Your task to perform on an android device: Go to wifi settings Image 0: 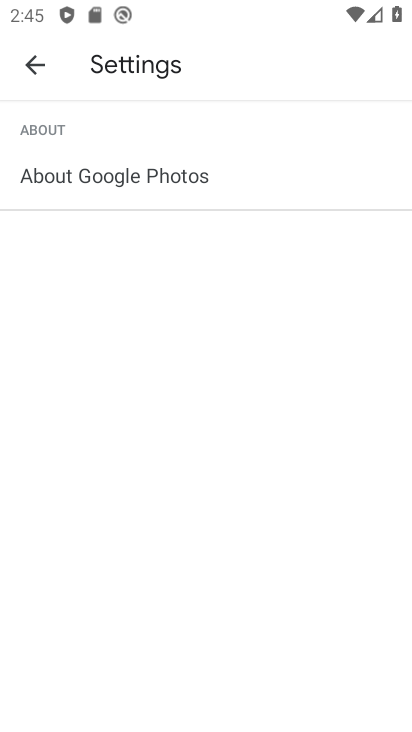
Step 0: press home button
Your task to perform on an android device: Go to wifi settings Image 1: 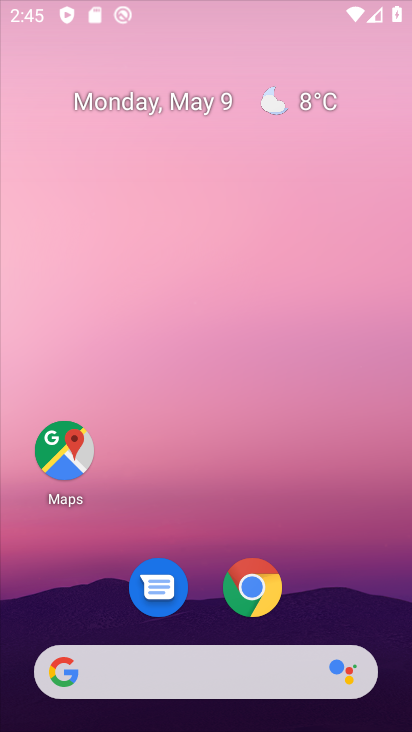
Step 1: drag from (187, 612) to (245, 168)
Your task to perform on an android device: Go to wifi settings Image 2: 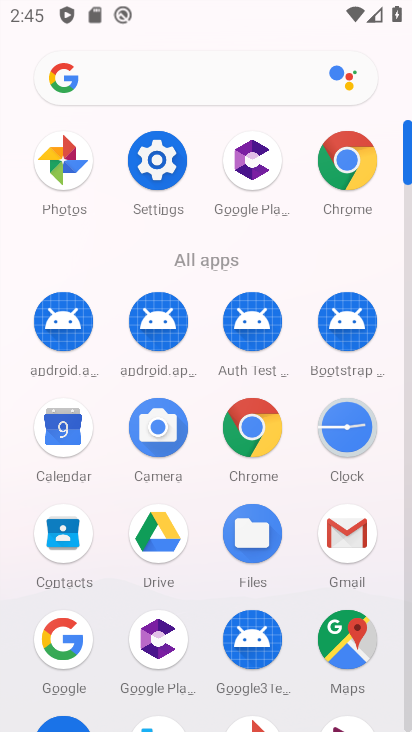
Step 2: click (149, 191)
Your task to perform on an android device: Go to wifi settings Image 3: 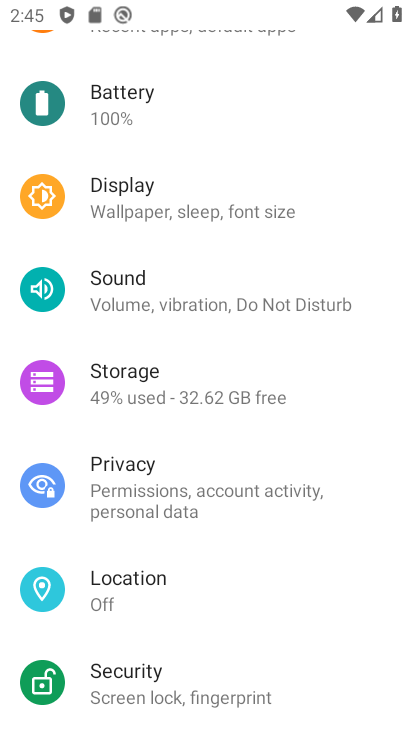
Step 3: drag from (215, 279) to (237, 700)
Your task to perform on an android device: Go to wifi settings Image 4: 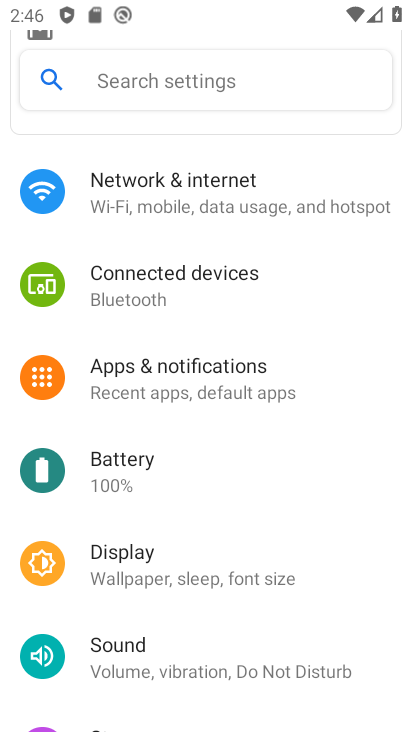
Step 4: click (196, 190)
Your task to perform on an android device: Go to wifi settings Image 5: 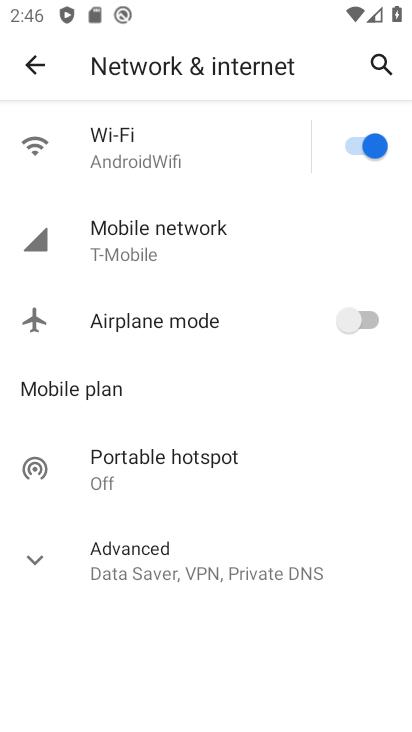
Step 5: click (118, 169)
Your task to perform on an android device: Go to wifi settings Image 6: 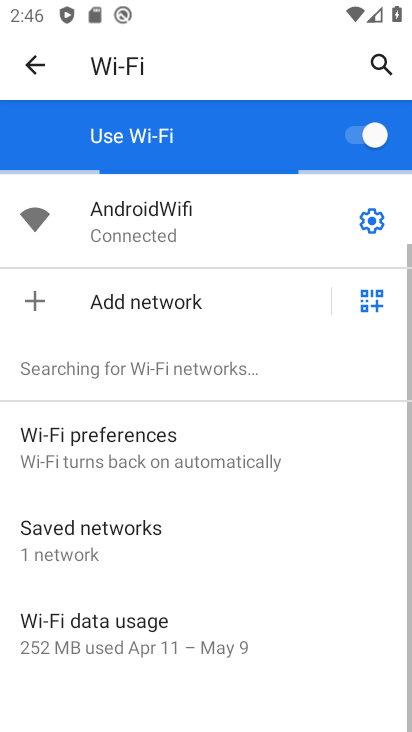
Step 6: task complete